Your task to perform on an android device: search for starred emails in the gmail app Image 0: 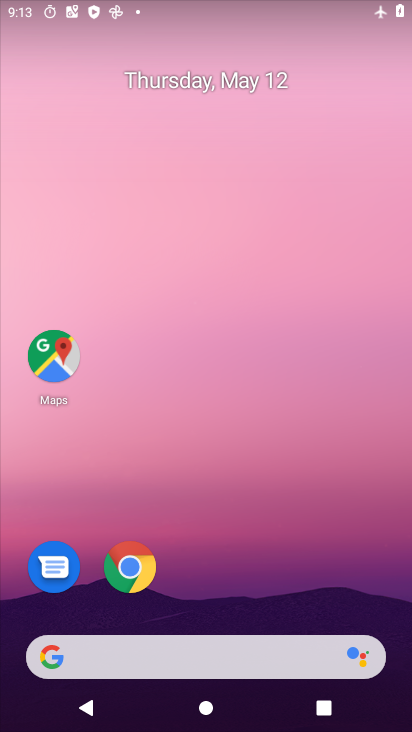
Step 0: drag from (254, 605) to (253, 134)
Your task to perform on an android device: search for starred emails in the gmail app Image 1: 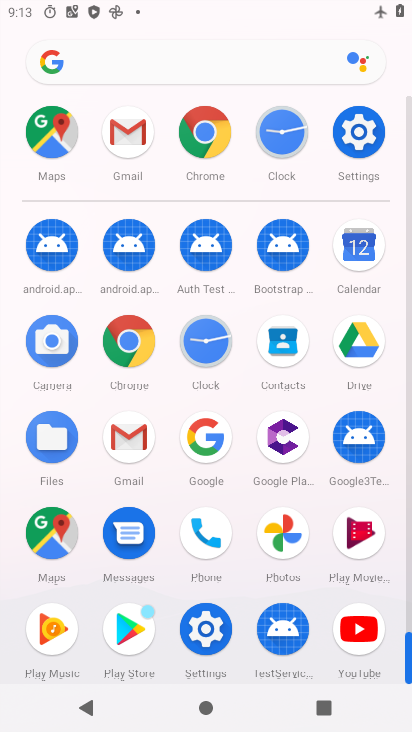
Step 1: click (140, 470)
Your task to perform on an android device: search for starred emails in the gmail app Image 2: 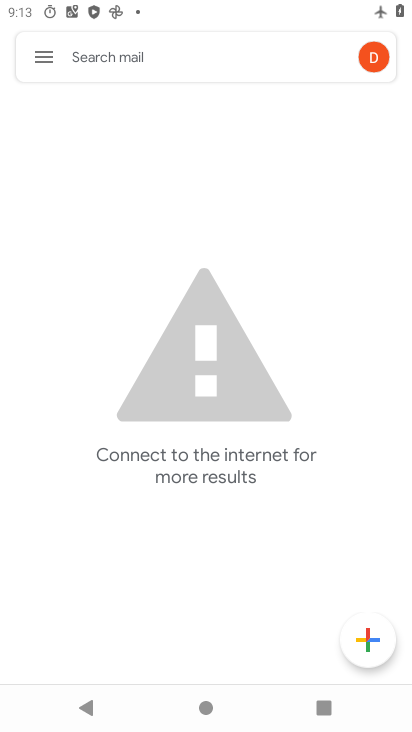
Step 2: click (39, 57)
Your task to perform on an android device: search for starred emails in the gmail app Image 3: 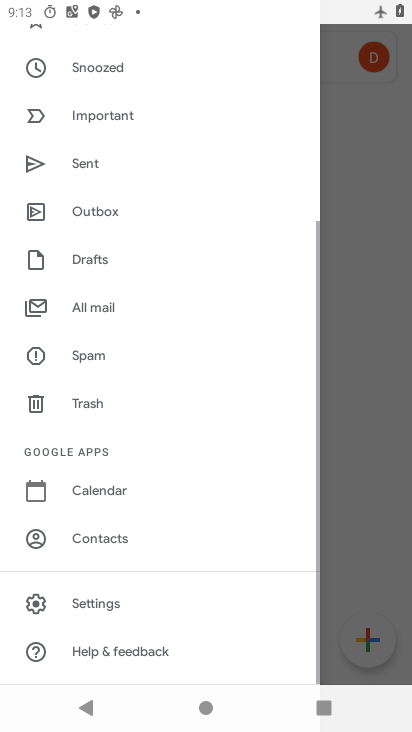
Step 3: drag from (132, 132) to (122, 457)
Your task to perform on an android device: search for starred emails in the gmail app Image 4: 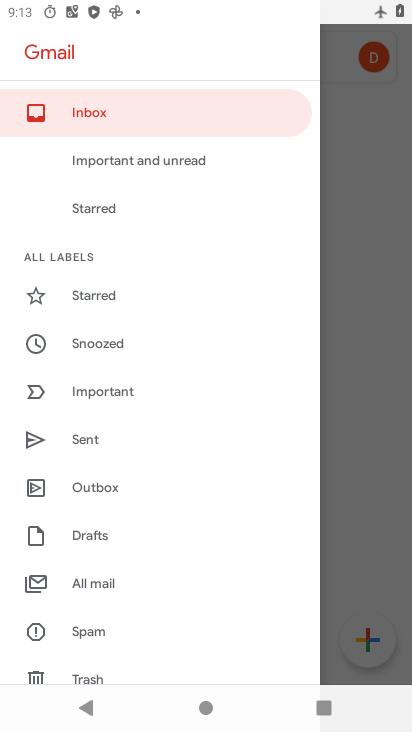
Step 4: click (148, 286)
Your task to perform on an android device: search for starred emails in the gmail app Image 5: 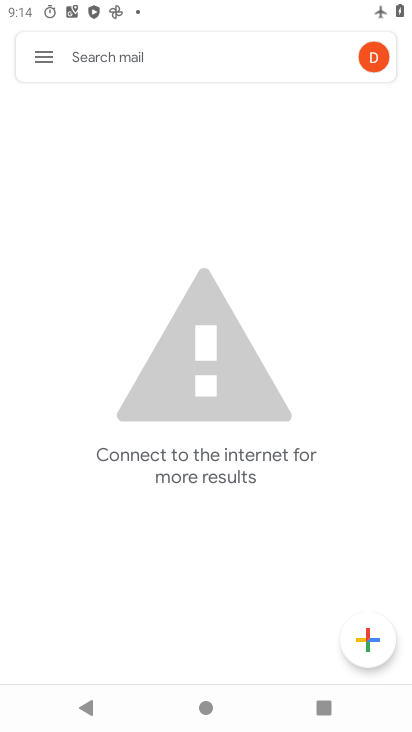
Step 5: click (47, 58)
Your task to perform on an android device: search for starred emails in the gmail app Image 6: 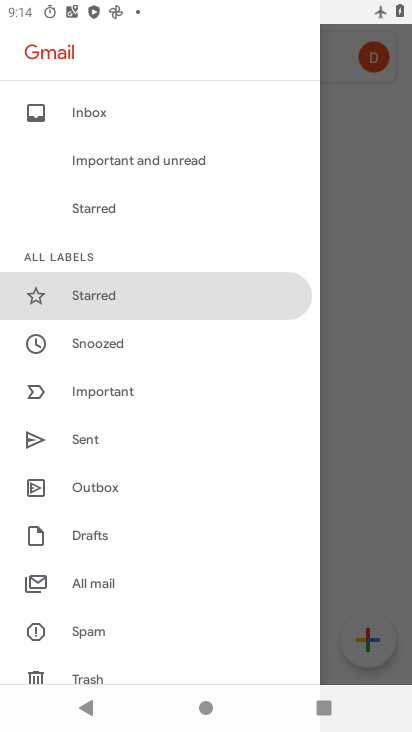
Step 6: task complete